Your task to perform on an android device: Open settings on Google Maps Image 0: 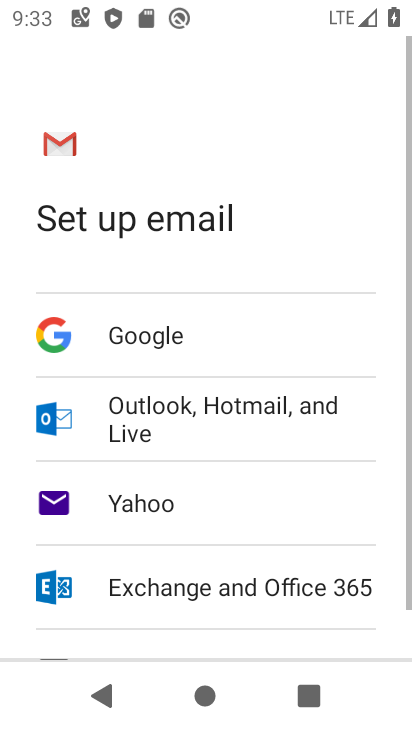
Step 0: press home button
Your task to perform on an android device: Open settings on Google Maps Image 1: 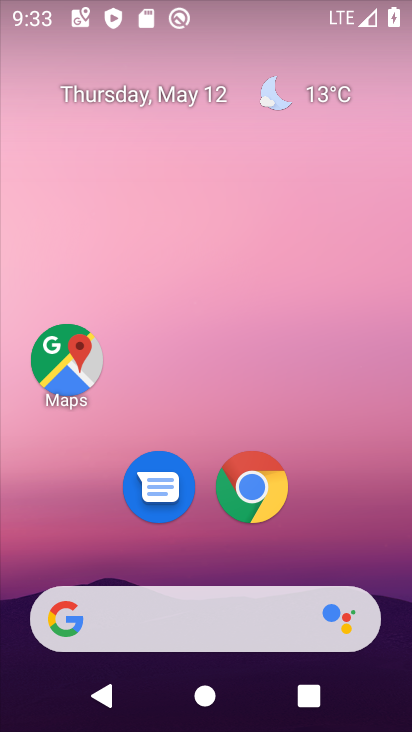
Step 1: click (68, 363)
Your task to perform on an android device: Open settings on Google Maps Image 2: 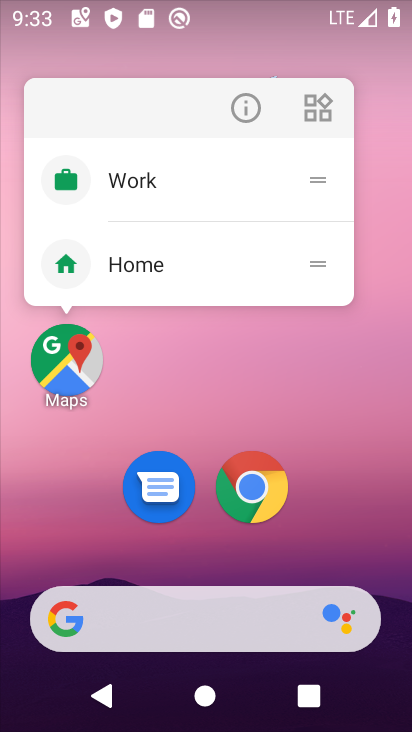
Step 2: click (69, 360)
Your task to perform on an android device: Open settings on Google Maps Image 3: 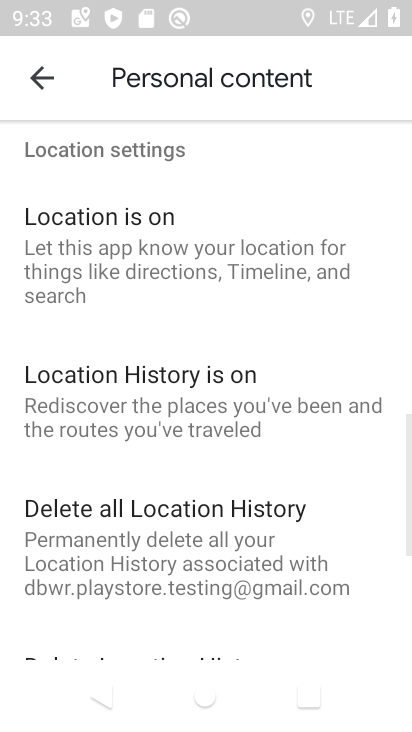
Step 3: click (41, 77)
Your task to perform on an android device: Open settings on Google Maps Image 4: 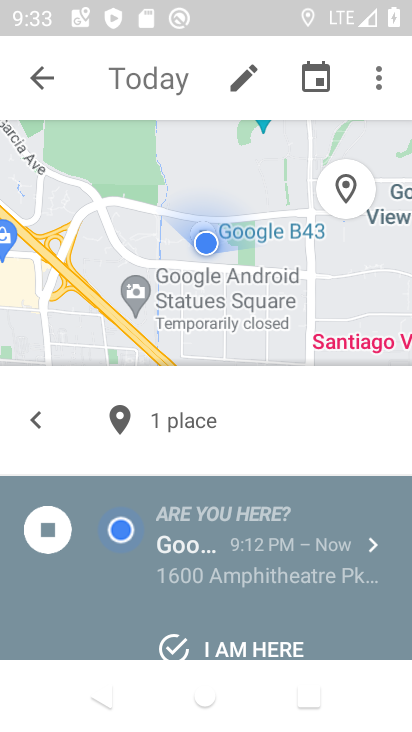
Step 4: click (41, 77)
Your task to perform on an android device: Open settings on Google Maps Image 5: 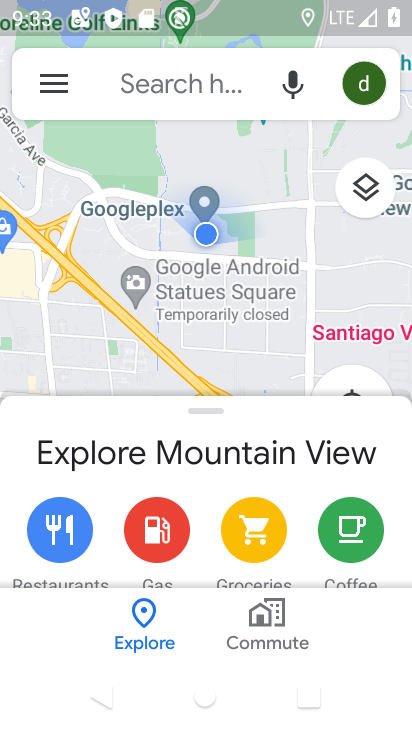
Step 5: click (41, 77)
Your task to perform on an android device: Open settings on Google Maps Image 6: 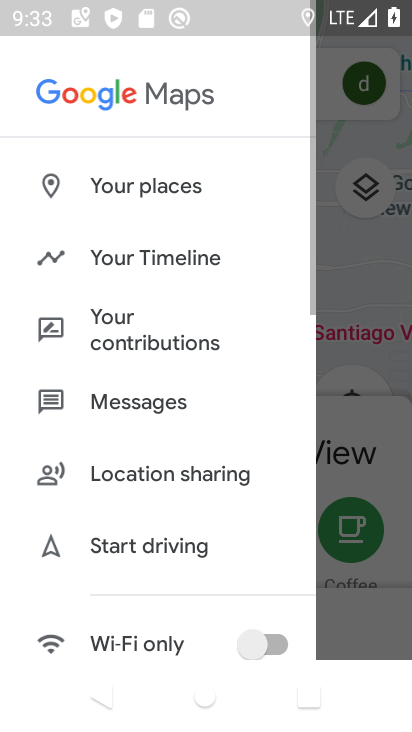
Step 6: drag from (136, 598) to (183, 93)
Your task to perform on an android device: Open settings on Google Maps Image 7: 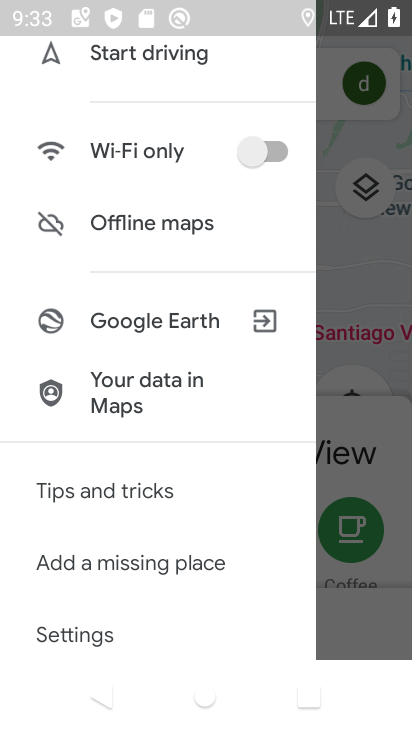
Step 7: click (72, 630)
Your task to perform on an android device: Open settings on Google Maps Image 8: 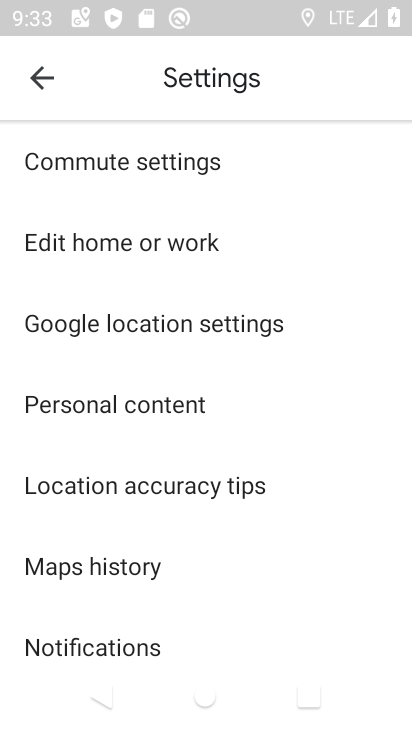
Step 8: task complete